Your task to perform on an android device: set default search engine in the chrome app Image 0: 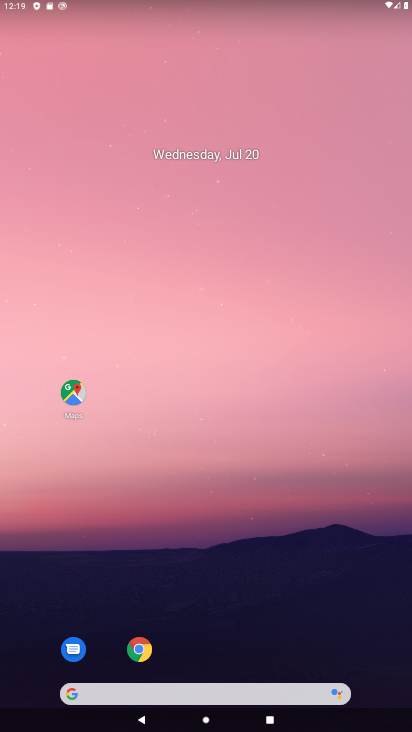
Step 0: click (131, 652)
Your task to perform on an android device: set default search engine in the chrome app Image 1: 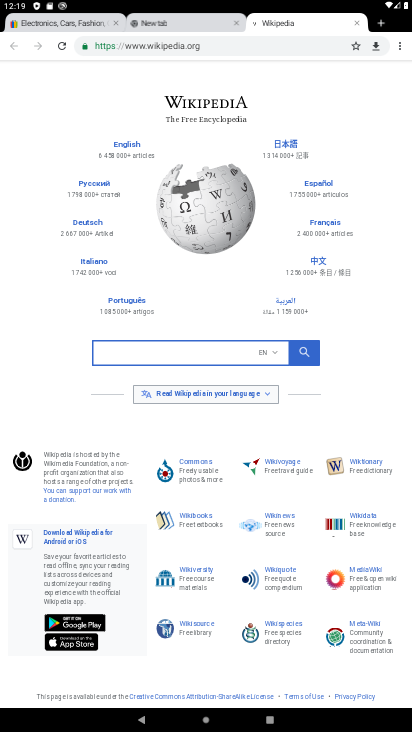
Step 1: click (401, 43)
Your task to perform on an android device: set default search engine in the chrome app Image 2: 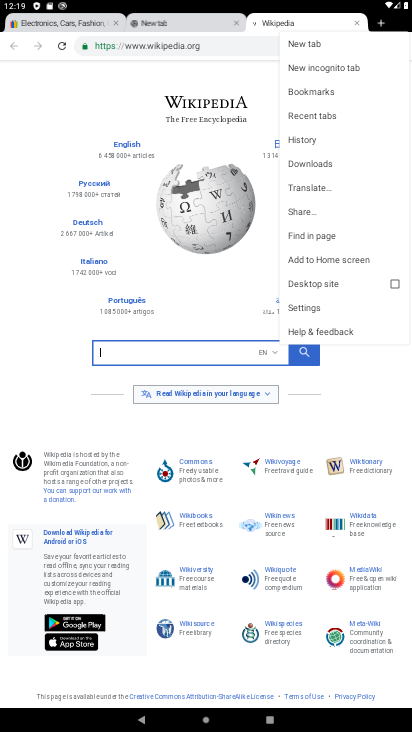
Step 2: click (300, 305)
Your task to perform on an android device: set default search engine in the chrome app Image 3: 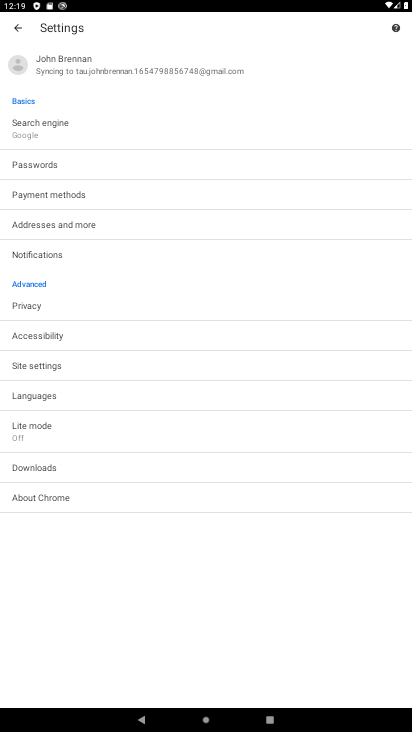
Step 3: click (55, 131)
Your task to perform on an android device: set default search engine in the chrome app Image 4: 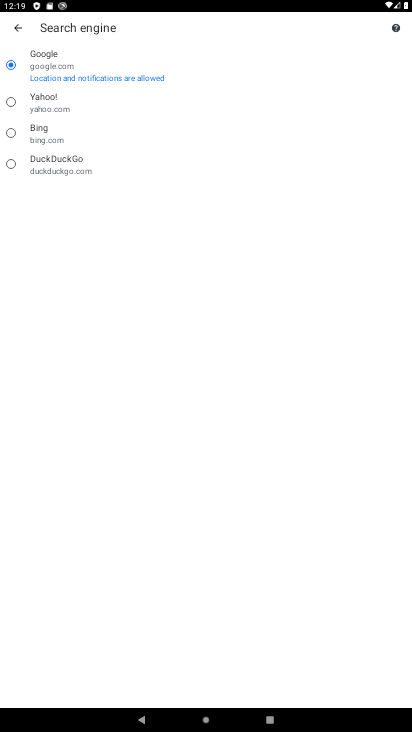
Step 4: task complete